Your task to perform on an android device: toggle show notifications on the lock screen Image 0: 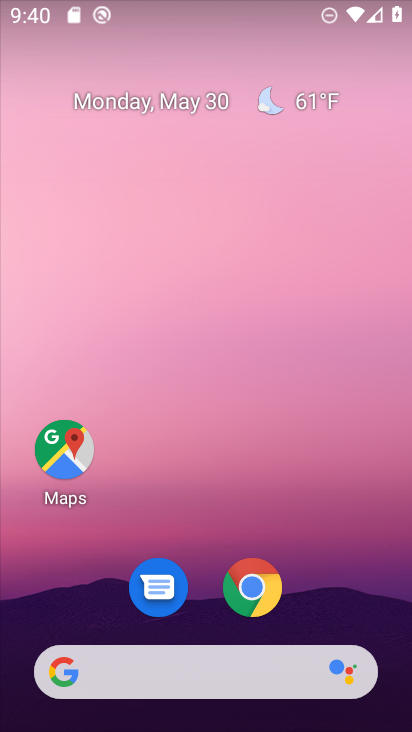
Step 0: drag from (299, 656) to (157, 17)
Your task to perform on an android device: toggle show notifications on the lock screen Image 1: 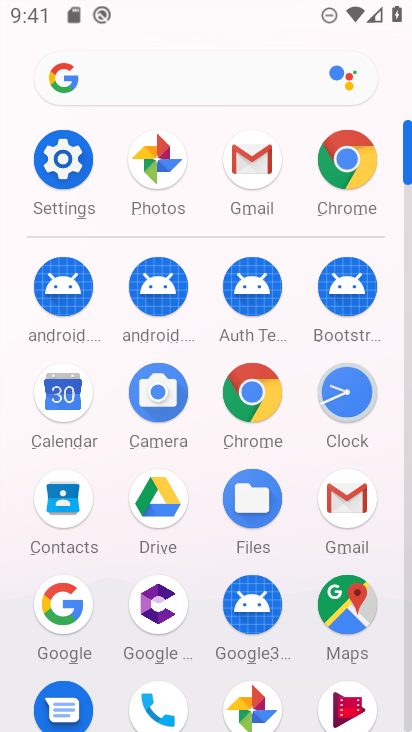
Step 1: click (68, 169)
Your task to perform on an android device: toggle show notifications on the lock screen Image 2: 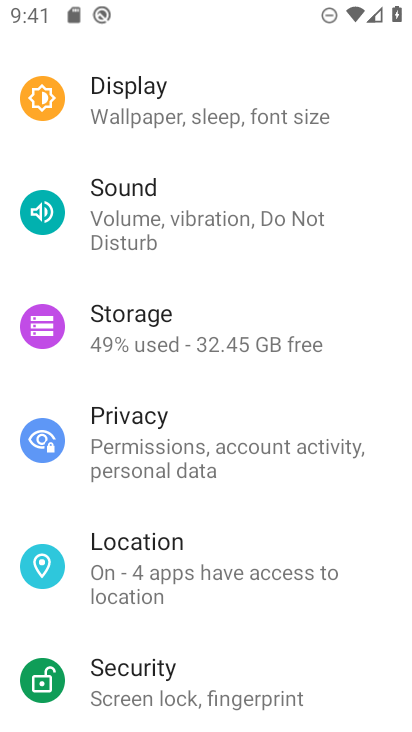
Step 2: task complete